Your task to perform on an android device: Do I have any events this weekend? Image 0: 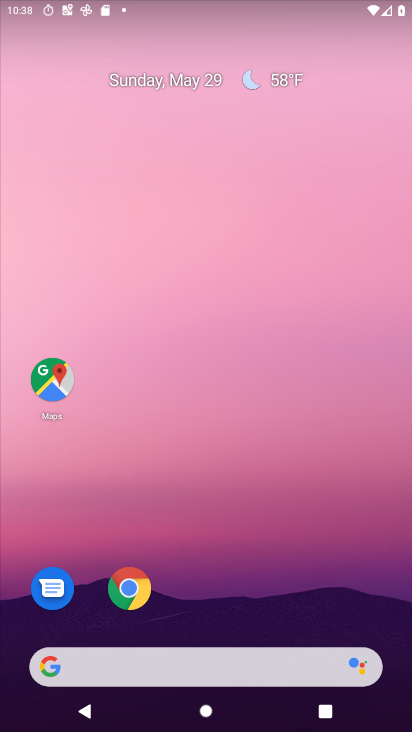
Step 0: click (277, 34)
Your task to perform on an android device: Do I have any events this weekend? Image 1: 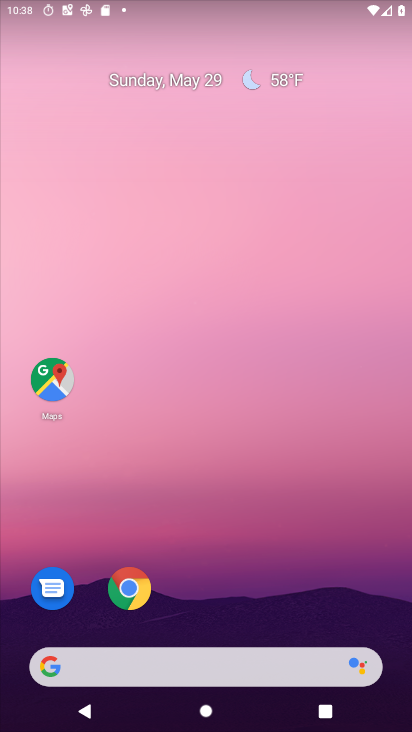
Step 1: drag from (209, 530) to (174, 237)
Your task to perform on an android device: Do I have any events this weekend? Image 2: 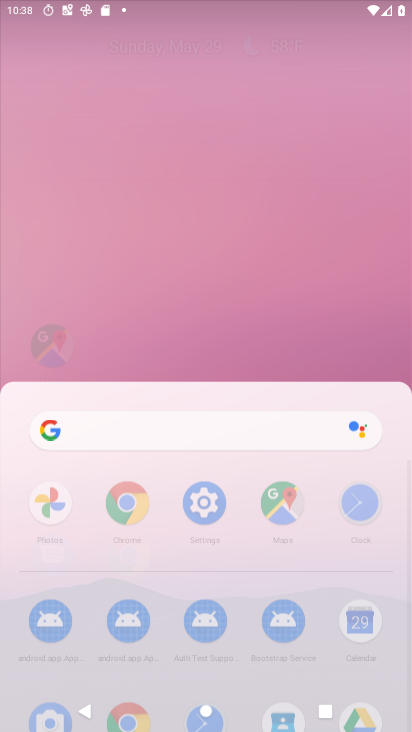
Step 2: drag from (201, 541) to (185, 179)
Your task to perform on an android device: Do I have any events this weekend? Image 3: 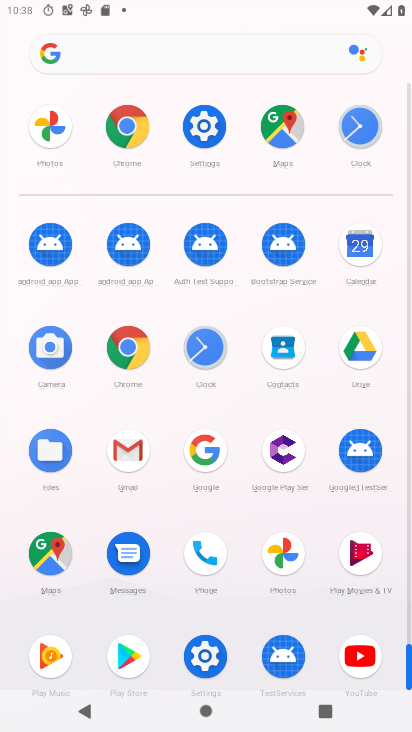
Step 3: click (357, 239)
Your task to perform on an android device: Do I have any events this weekend? Image 4: 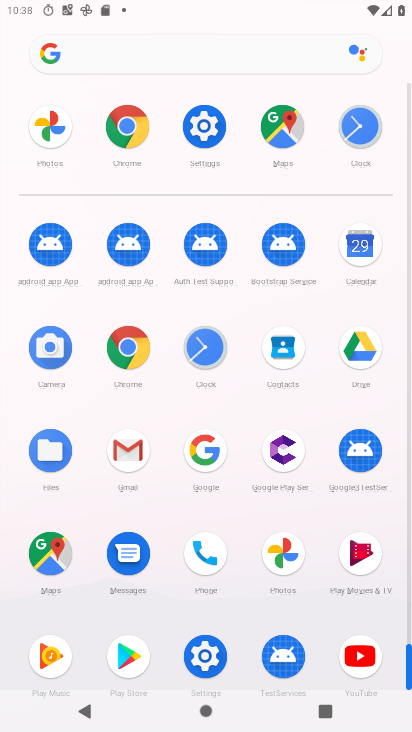
Step 4: click (358, 239)
Your task to perform on an android device: Do I have any events this weekend? Image 5: 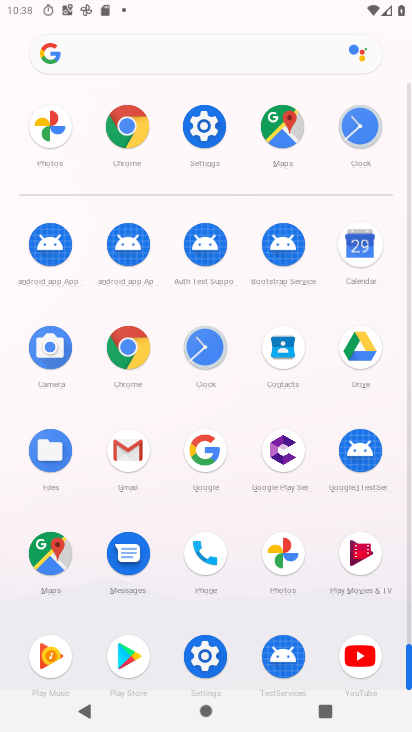
Step 5: click (358, 239)
Your task to perform on an android device: Do I have any events this weekend? Image 6: 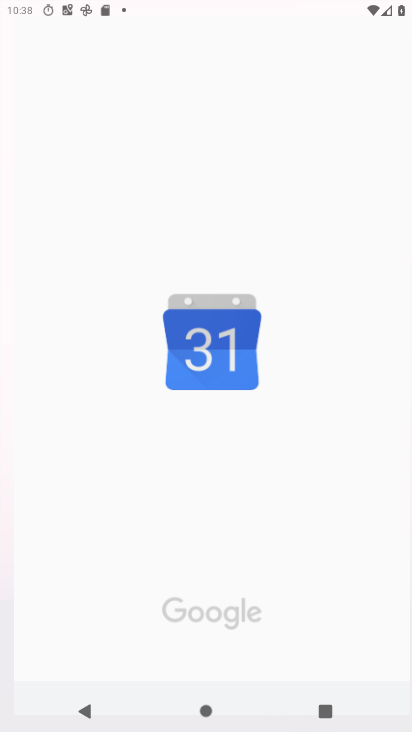
Step 6: click (359, 239)
Your task to perform on an android device: Do I have any events this weekend? Image 7: 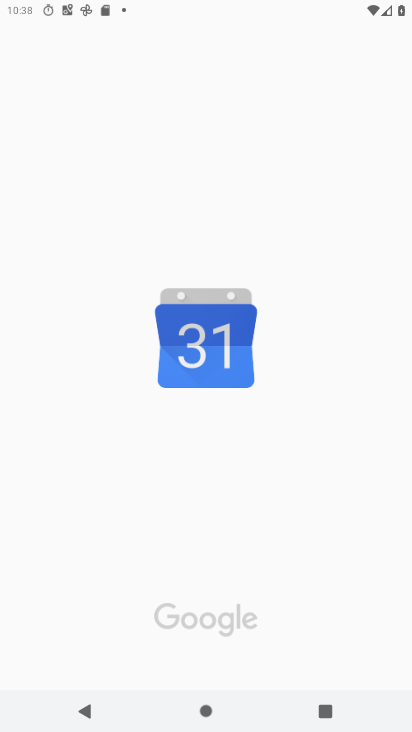
Step 7: click (359, 239)
Your task to perform on an android device: Do I have any events this weekend? Image 8: 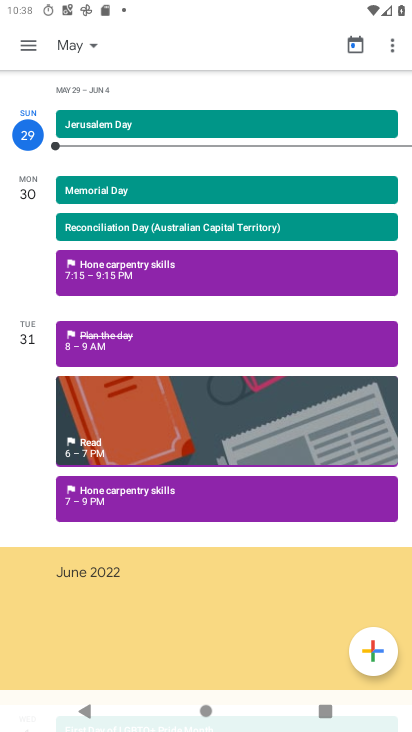
Step 8: click (89, 47)
Your task to perform on an android device: Do I have any events this weekend? Image 9: 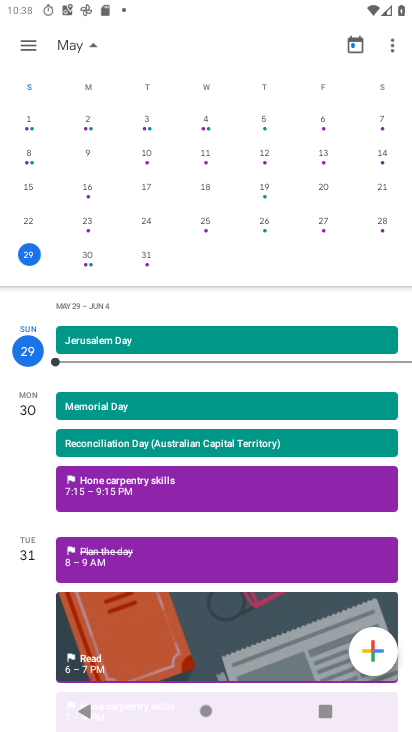
Step 9: drag from (292, 192) to (36, 140)
Your task to perform on an android device: Do I have any events this weekend? Image 10: 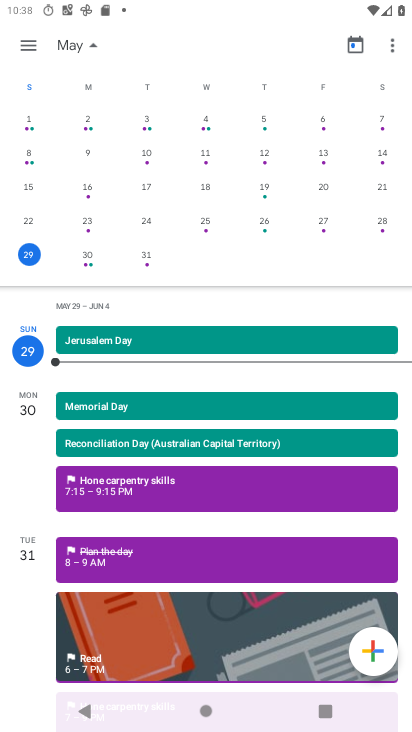
Step 10: click (11, 279)
Your task to perform on an android device: Do I have any events this weekend? Image 11: 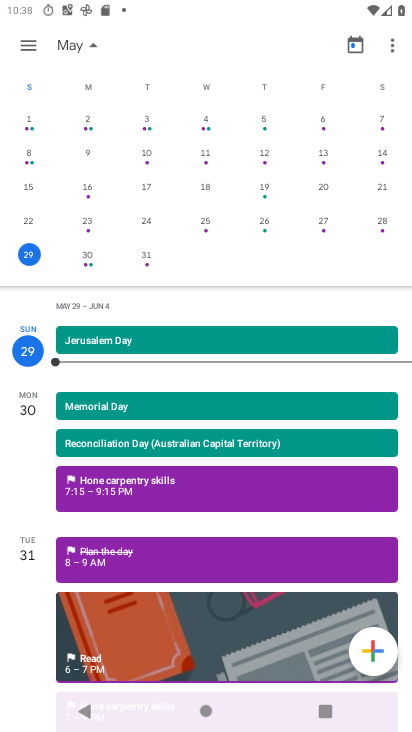
Step 11: drag from (273, 135) to (10, 157)
Your task to perform on an android device: Do I have any events this weekend? Image 12: 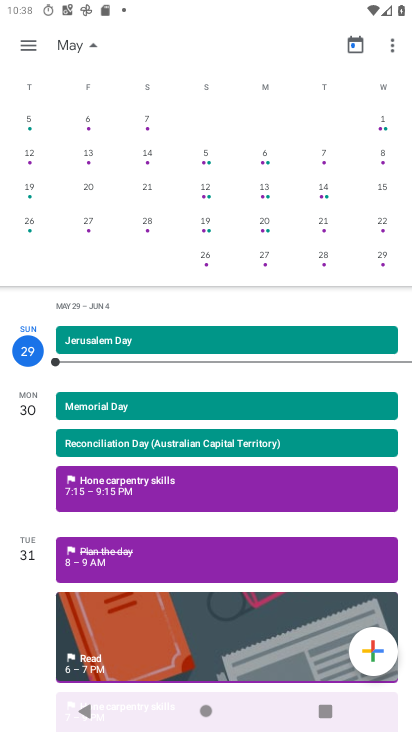
Step 12: drag from (308, 205) to (16, 202)
Your task to perform on an android device: Do I have any events this weekend? Image 13: 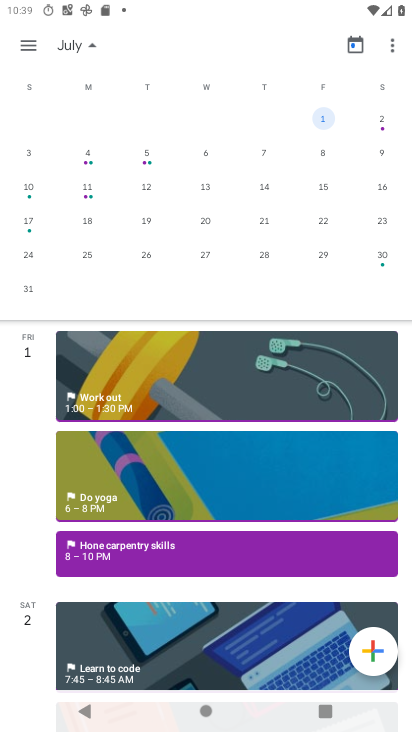
Step 13: drag from (83, 194) to (344, 249)
Your task to perform on an android device: Do I have any events this weekend? Image 14: 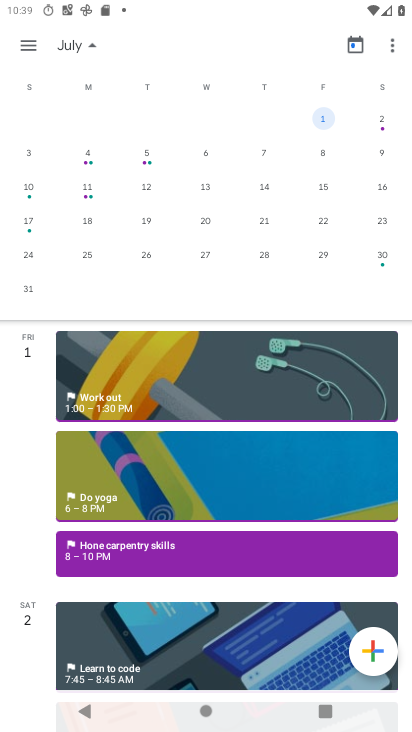
Step 14: click (387, 243)
Your task to perform on an android device: Do I have any events this weekend? Image 15: 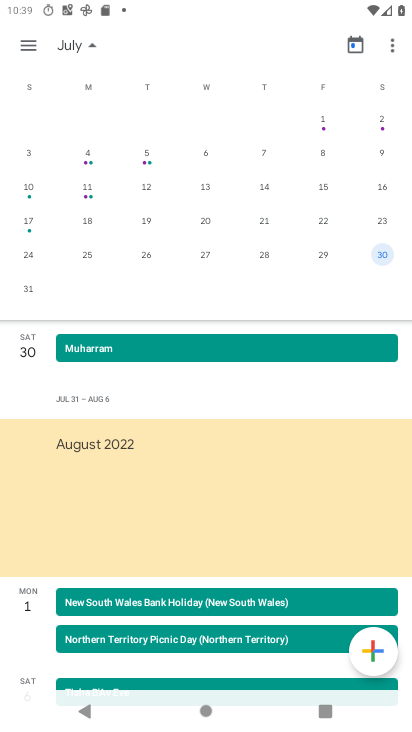
Step 15: drag from (149, 220) to (383, 296)
Your task to perform on an android device: Do I have any events this weekend? Image 16: 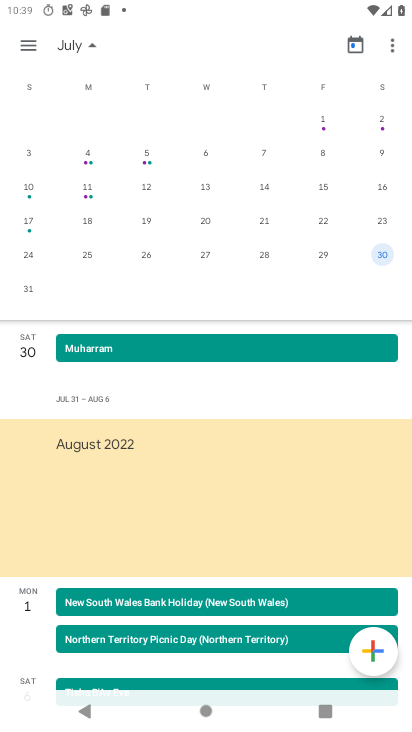
Step 16: drag from (99, 191) to (399, 238)
Your task to perform on an android device: Do I have any events this weekend? Image 17: 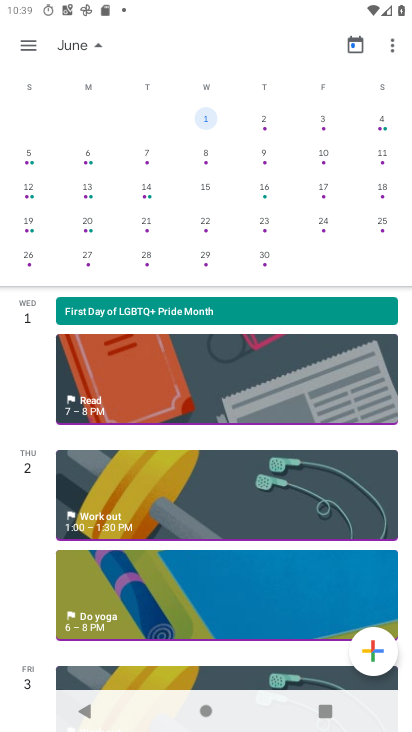
Step 17: click (327, 128)
Your task to perform on an android device: Do I have any events this weekend? Image 18: 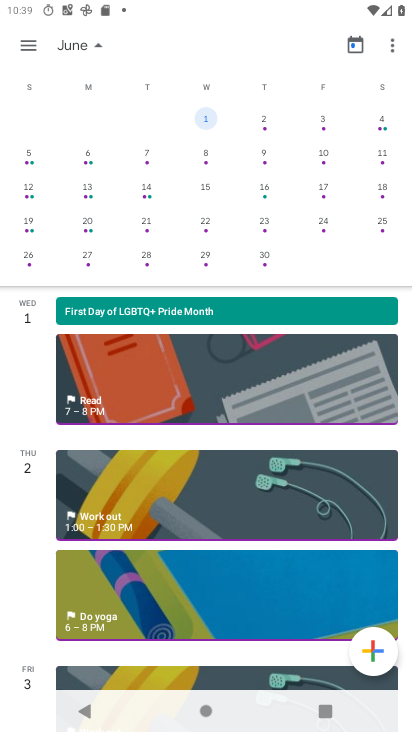
Step 18: click (326, 128)
Your task to perform on an android device: Do I have any events this weekend? Image 19: 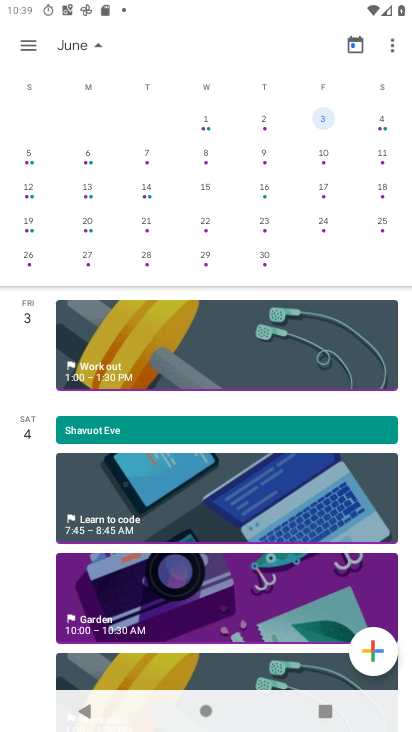
Step 19: click (325, 128)
Your task to perform on an android device: Do I have any events this weekend? Image 20: 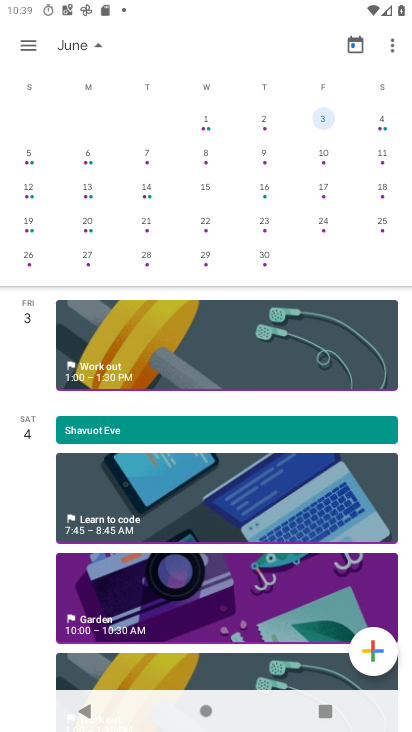
Step 20: task complete